Your task to perform on an android device: Open network settings Image 0: 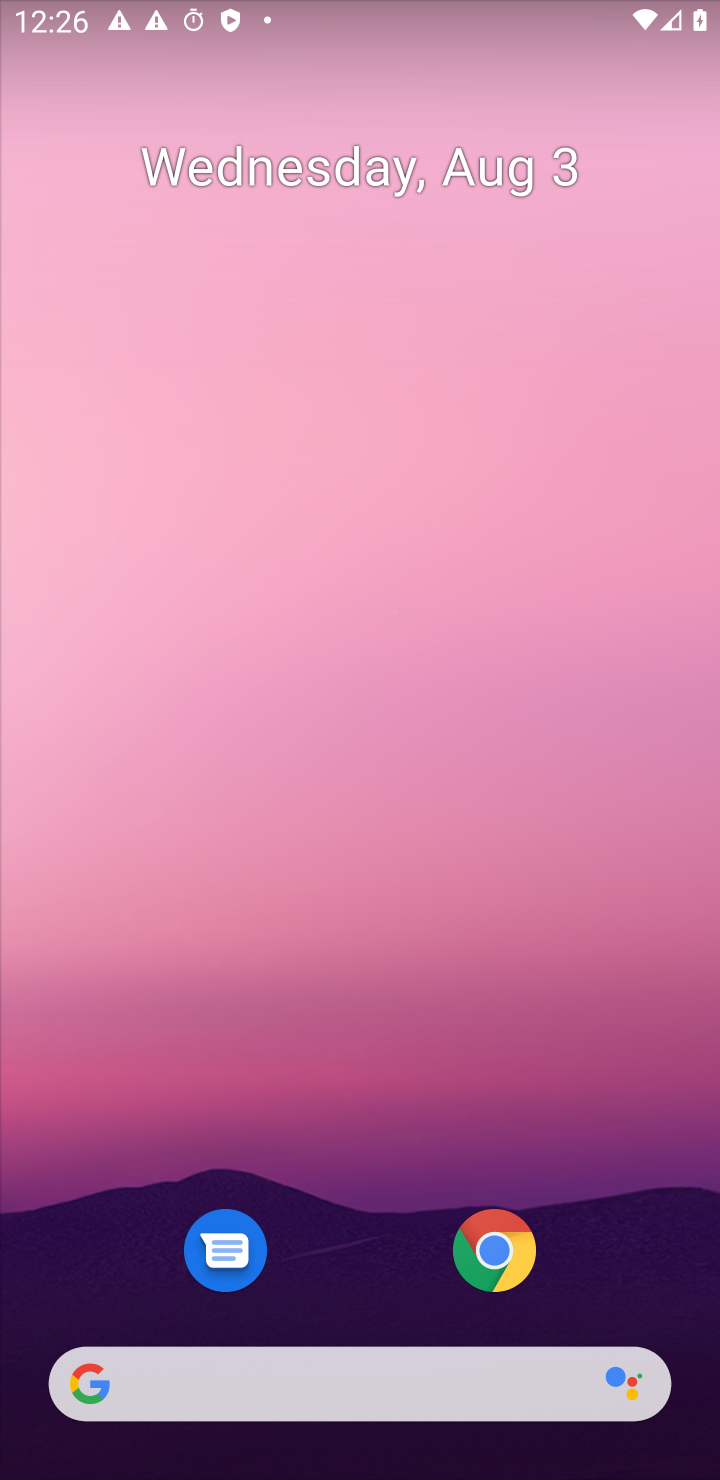
Step 0: drag from (343, 1273) to (391, 436)
Your task to perform on an android device: Open network settings Image 1: 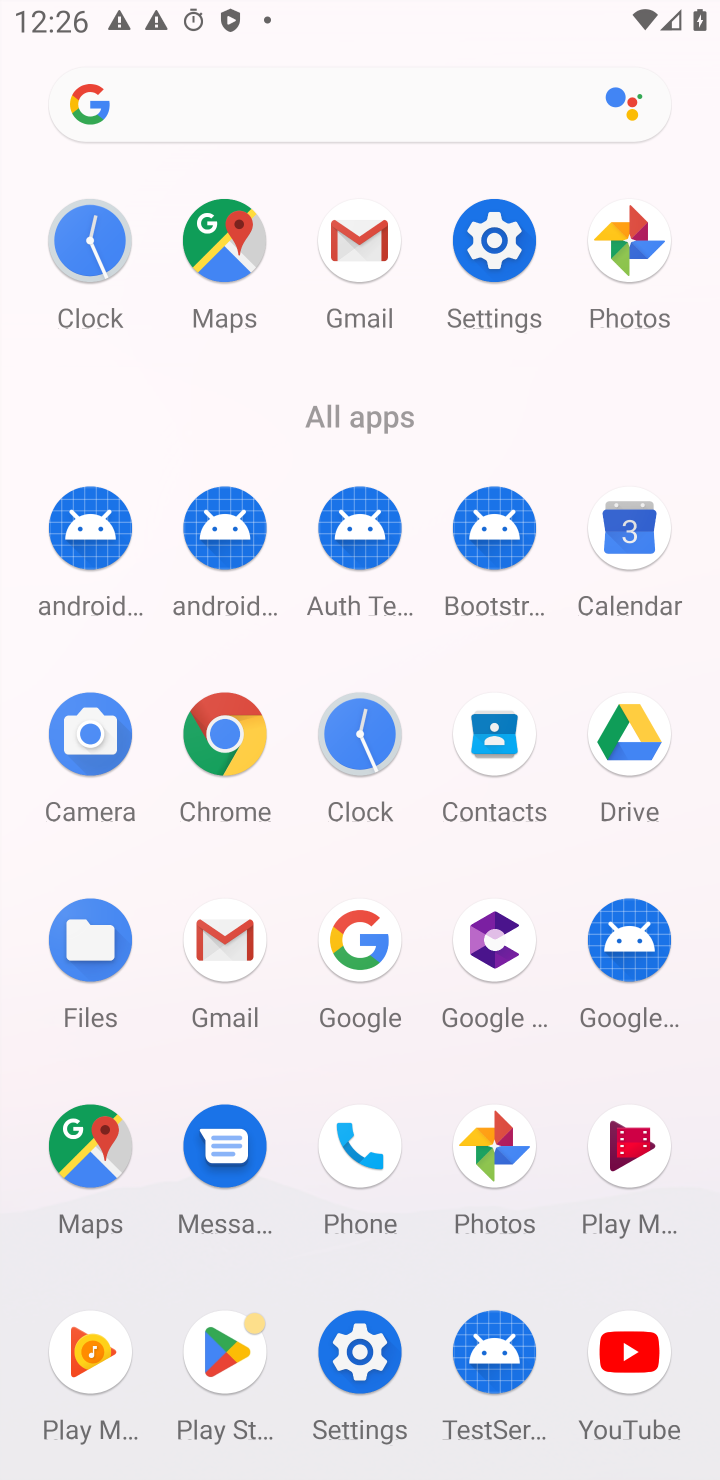
Step 1: click (495, 229)
Your task to perform on an android device: Open network settings Image 2: 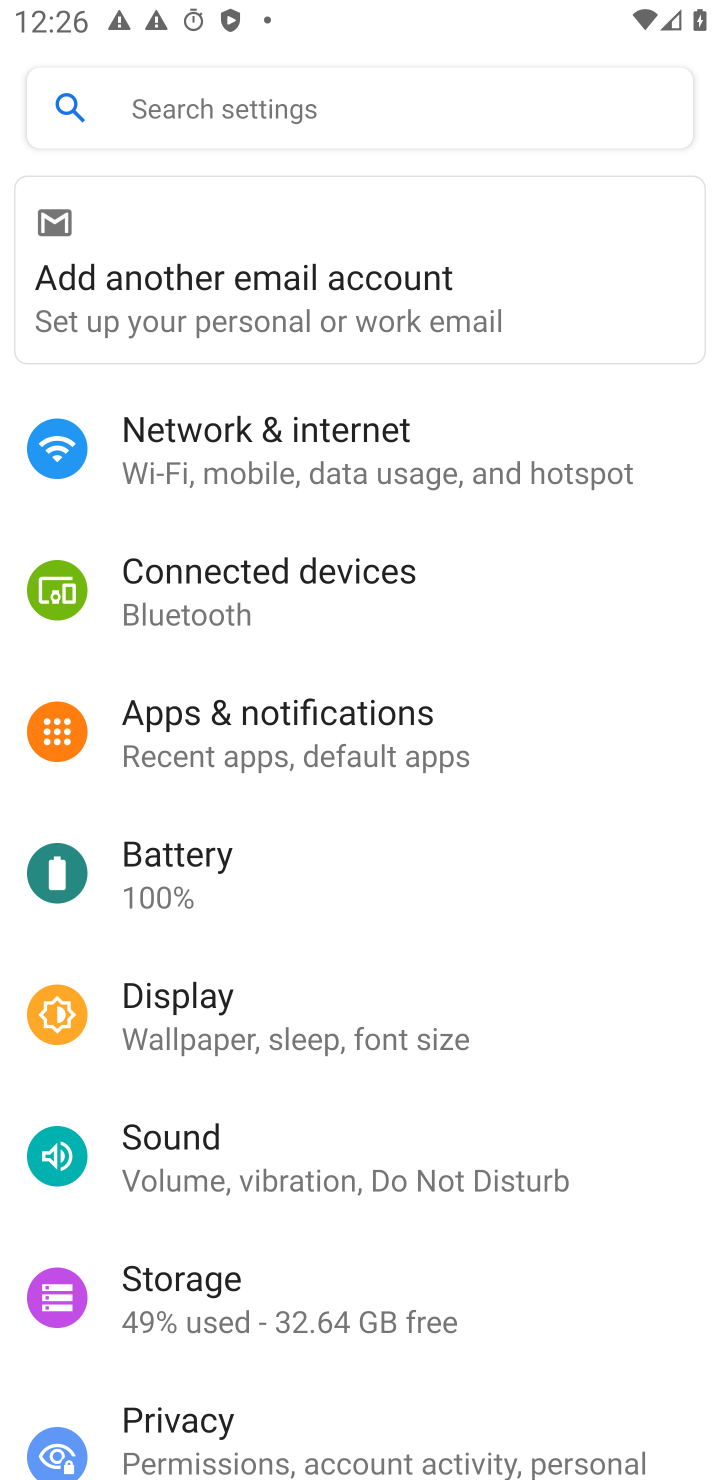
Step 2: click (340, 427)
Your task to perform on an android device: Open network settings Image 3: 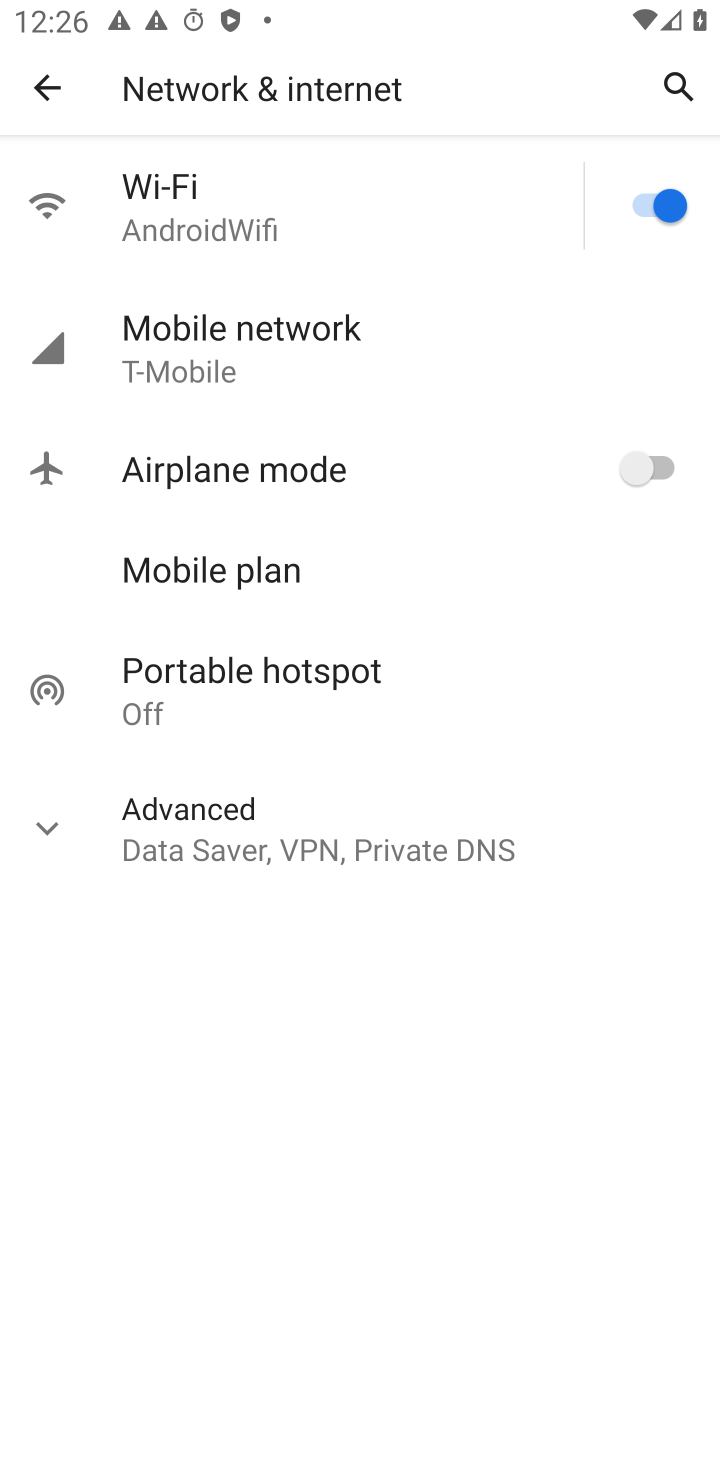
Step 3: task complete